Your task to perform on an android device: turn on location history Image 0: 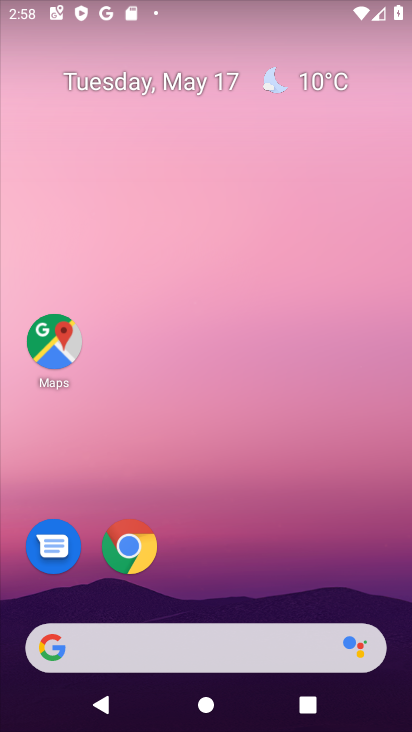
Step 0: drag from (246, 594) to (275, 1)
Your task to perform on an android device: turn on location history Image 1: 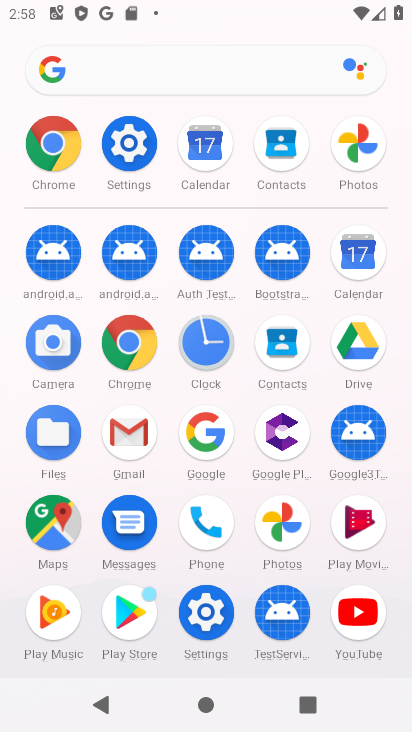
Step 1: click (136, 160)
Your task to perform on an android device: turn on location history Image 2: 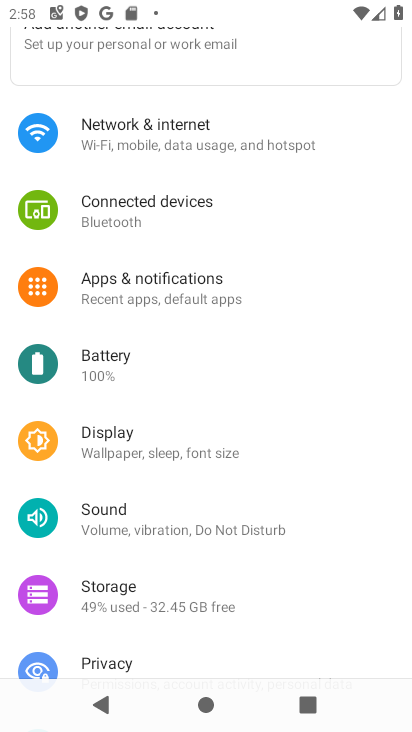
Step 2: drag from (148, 594) to (240, 169)
Your task to perform on an android device: turn on location history Image 3: 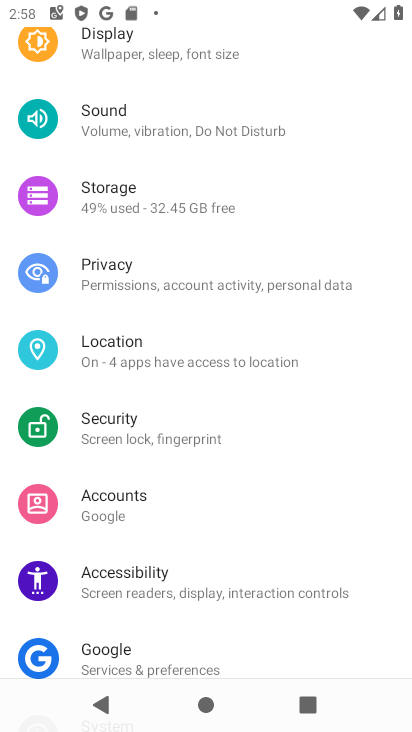
Step 3: click (127, 365)
Your task to perform on an android device: turn on location history Image 4: 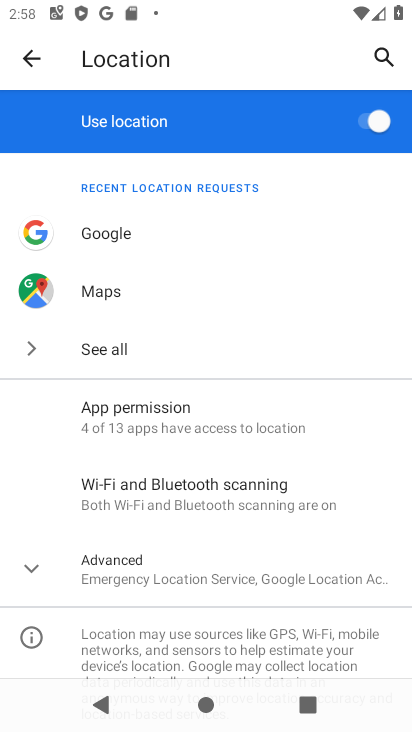
Step 4: drag from (204, 491) to (238, 328)
Your task to perform on an android device: turn on location history Image 5: 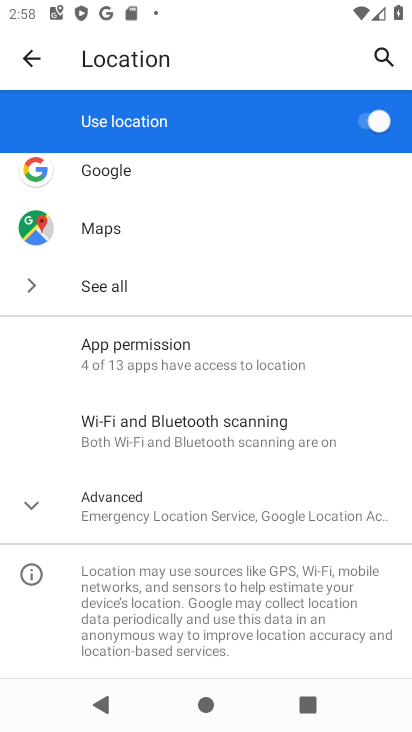
Step 5: click (150, 503)
Your task to perform on an android device: turn on location history Image 6: 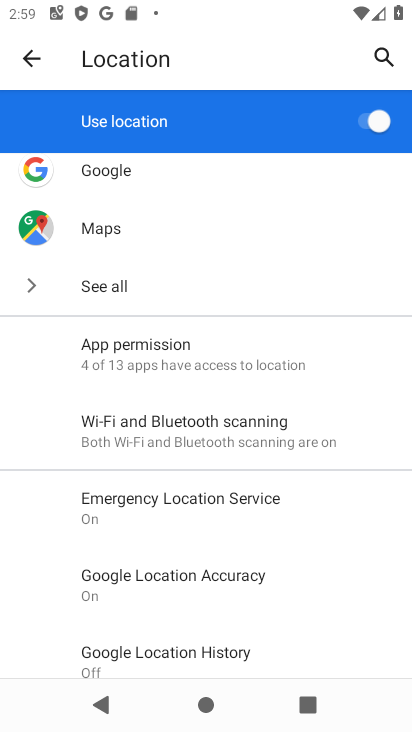
Step 6: click (209, 647)
Your task to perform on an android device: turn on location history Image 7: 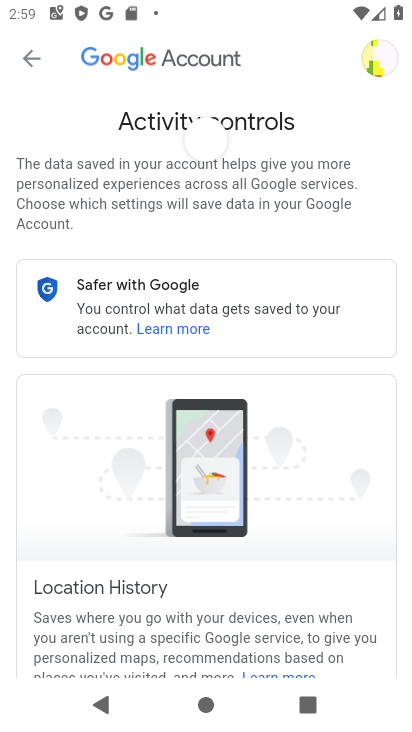
Step 7: task complete